Your task to perform on an android device: Is it going to rain tomorrow? Image 0: 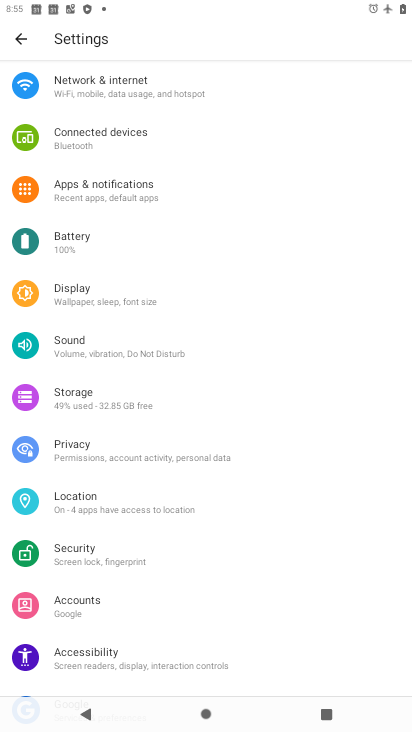
Step 0: press back button
Your task to perform on an android device: Is it going to rain tomorrow? Image 1: 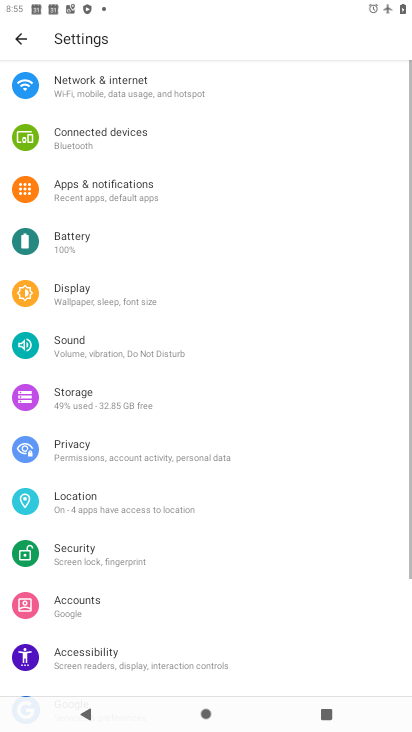
Step 1: press back button
Your task to perform on an android device: Is it going to rain tomorrow? Image 2: 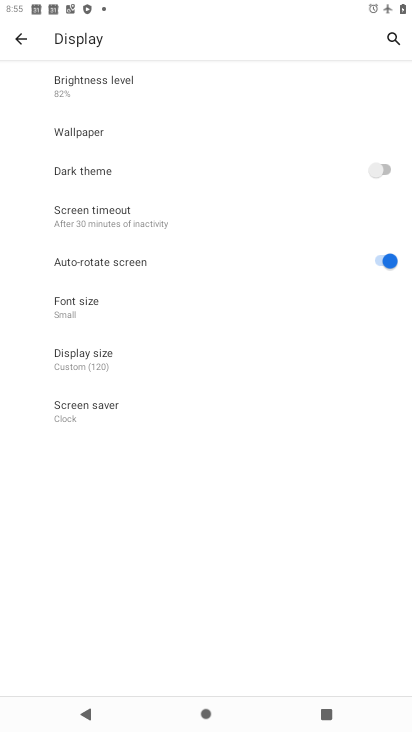
Step 2: press back button
Your task to perform on an android device: Is it going to rain tomorrow? Image 3: 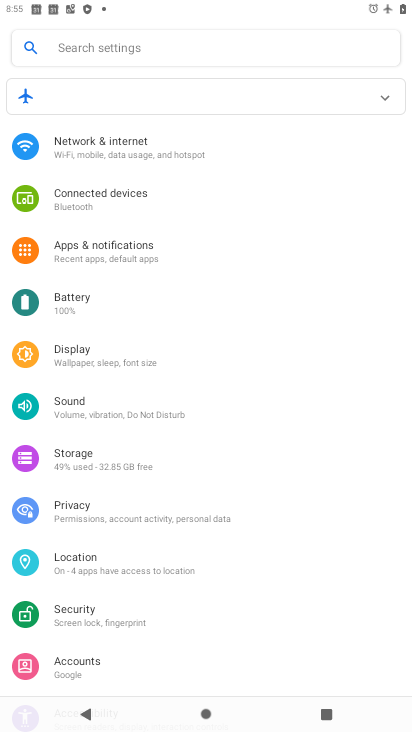
Step 3: press back button
Your task to perform on an android device: Is it going to rain tomorrow? Image 4: 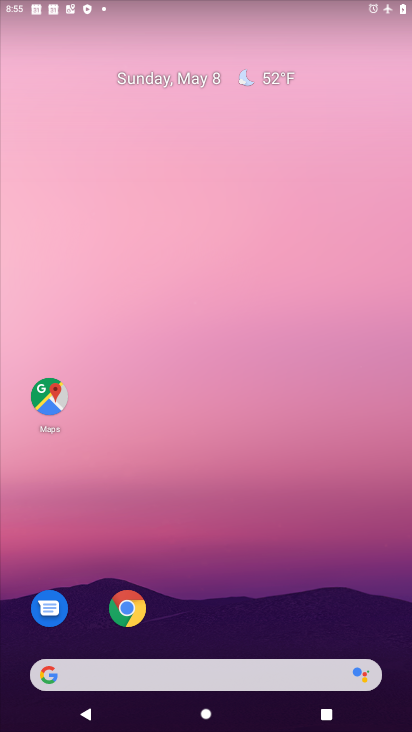
Step 4: click (123, 603)
Your task to perform on an android device: Is it going to rain tomorrow? Image 5: 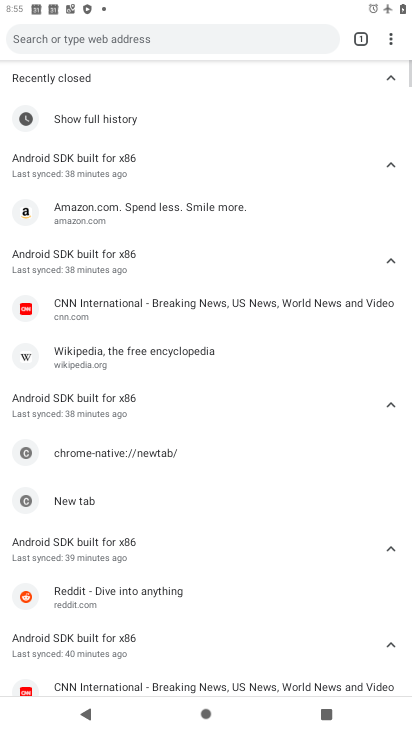
Step 5: click (145, 38)
Your task to perform on an android device: Is it going to rain tomorrow? Image 6: 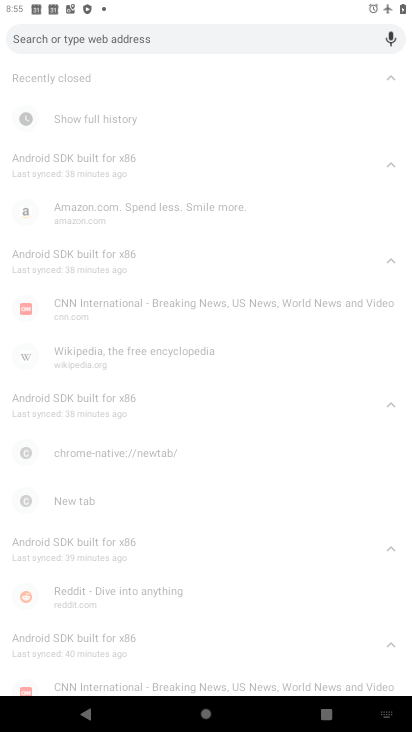
Step 6: type "Is it going to rain tomorrow?"
Your task to perform on an android device: Is it going to rain tomorrow? Image 7: 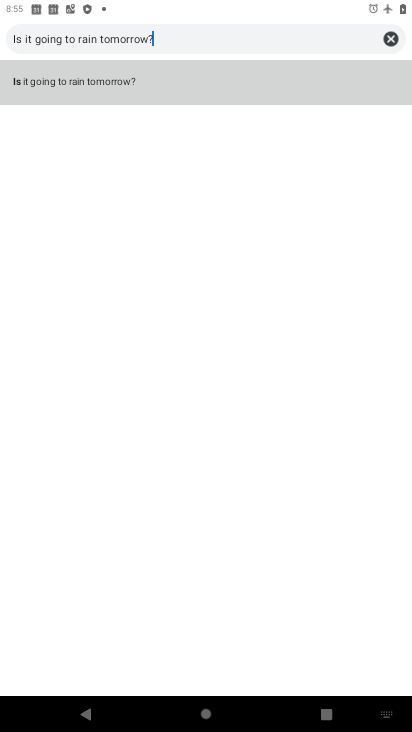
Step 7: type ""
Your task to perform on an android device: Is it going to rain tomorrow? Image 8: 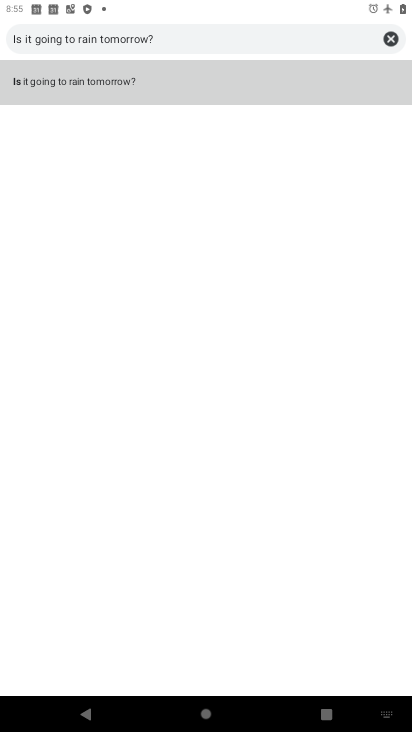
Step 8: click (119, 75)
Your task to perform on an android device: Is it going to rain tomorrow? Image 9: 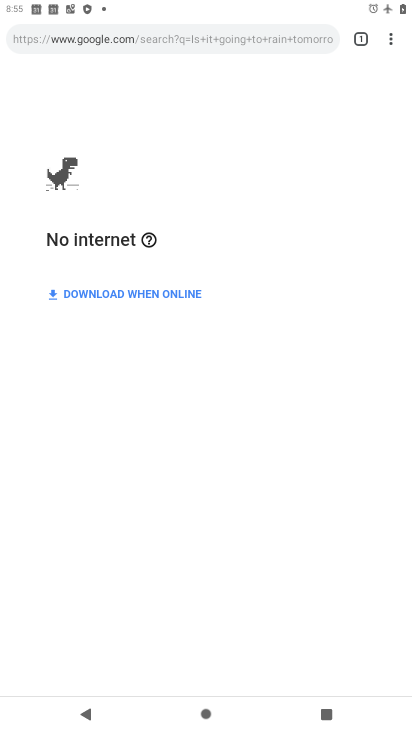
Step 9: task complete